Your task to perform on an android device: turn on priority inbox in the gmail app Image 0: 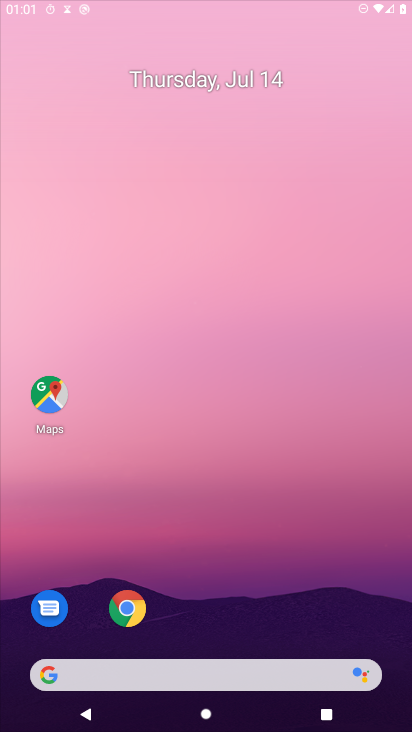
Step 0: press home button
Your task to perform on an android device: turn on priority inbox in the gmail app Image 1: 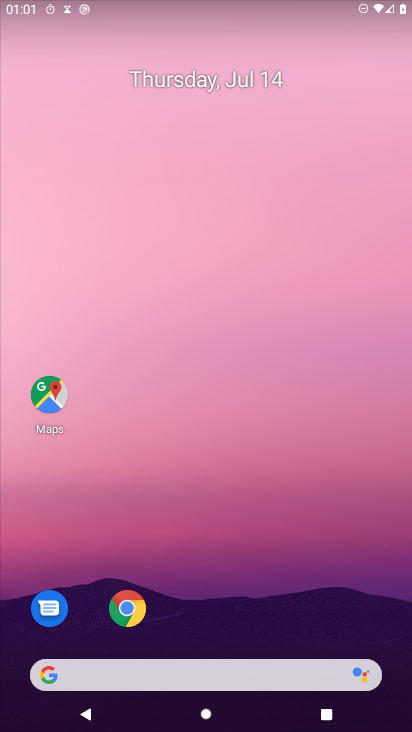
Step 1: drag from (231, 590) to (322, 73)
Your task to perform on an android device: turn on priority inbox in the gmail app Image 2: 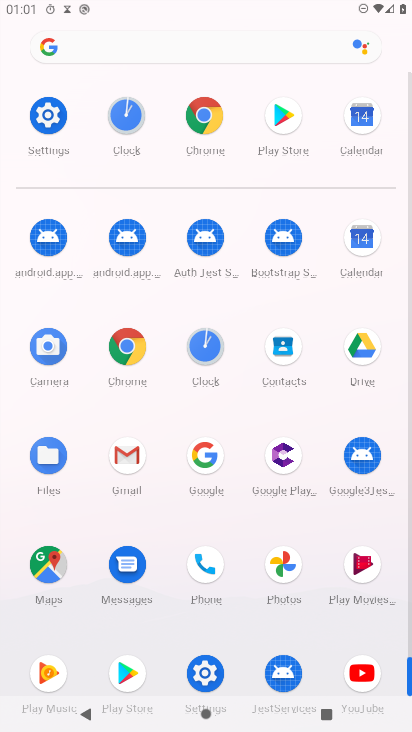
Step 2: click (131, 463)
Your task to perform on an android device: turn on priority inbox in the gmail app Image 3: 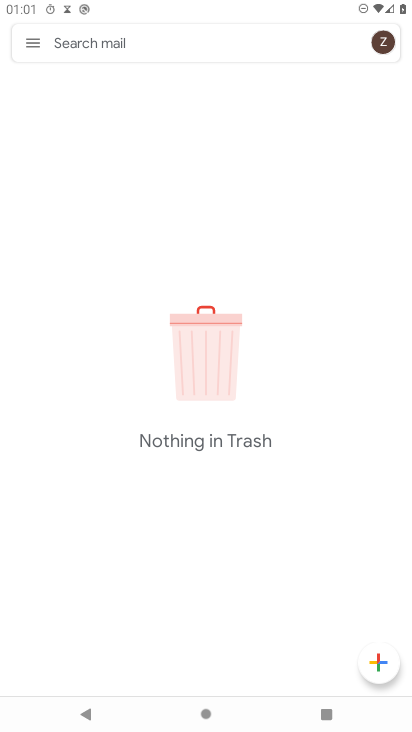
Step 3: click (26, 46)
Your task to perform on an android device: turn on priority inbox in the gmail app Image 4: 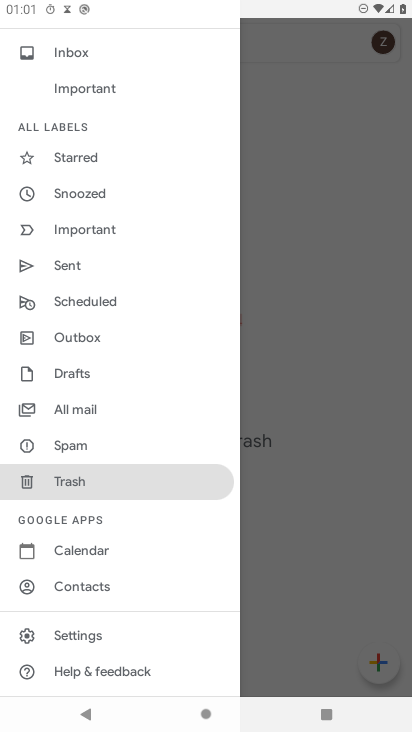
Step 4: click (80, 632)
Your task to perform on an android device: turn on priority inbox in the gmail app Image 5: 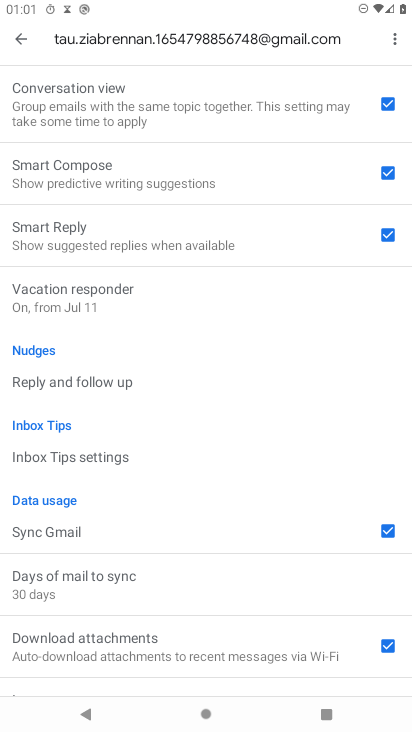
Step 5: task complete